Your task to perform on an android device: Open wifi settings Image 0: 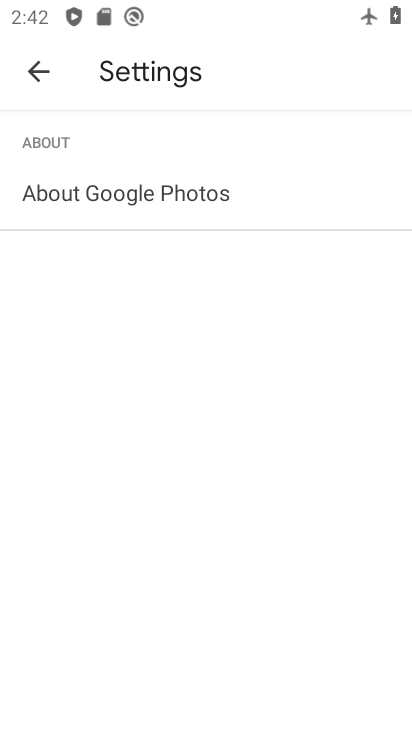
Step 0: press home button
Your task to perform on an android device: Open wifi settings Image 1: 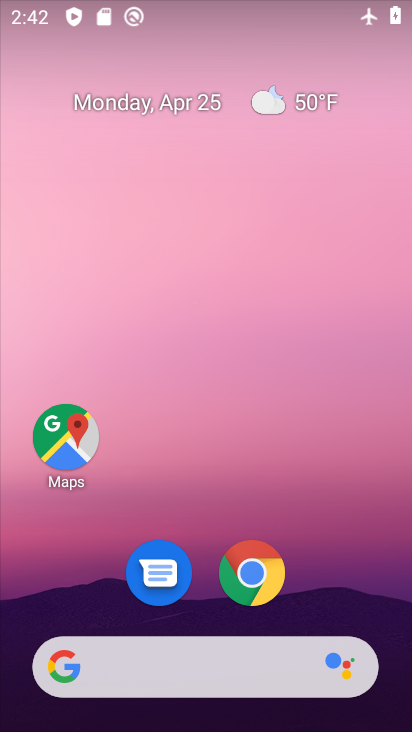
Step 1: drag from (323, 567) to (349, 63)
Your task to perform on an android device: Open wifi settings Image 2: 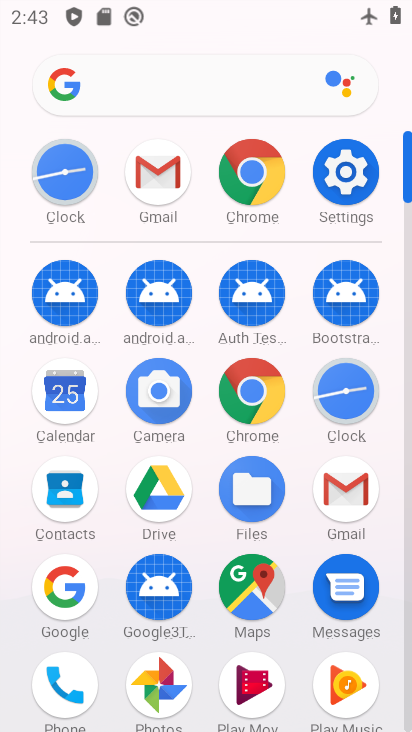
Step 2: click (352, 164)
Your task to perform on an android device: Open wifi settings Image 3: 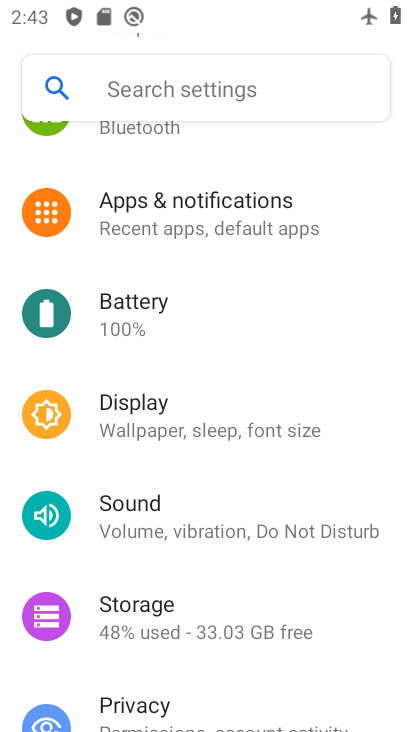
Step 3: drag from (268, 234) to (250, 612)
Your task to perform on an android device: Open wifi settings Image 4: 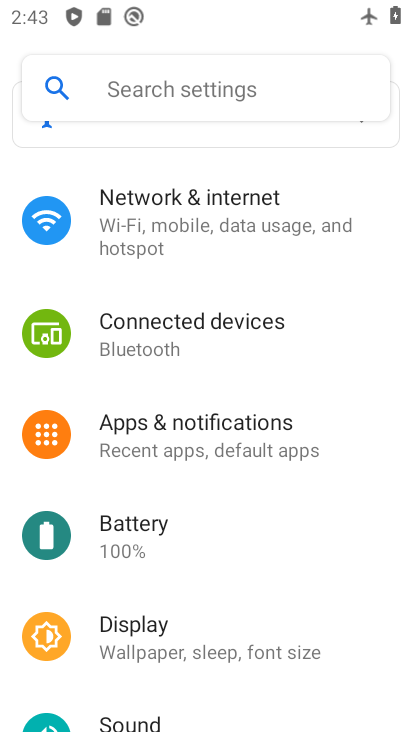
Step 4: drag from (216, 321) to (135, 596)
Your task to perform on an android device: Open wifi settings Image 5: 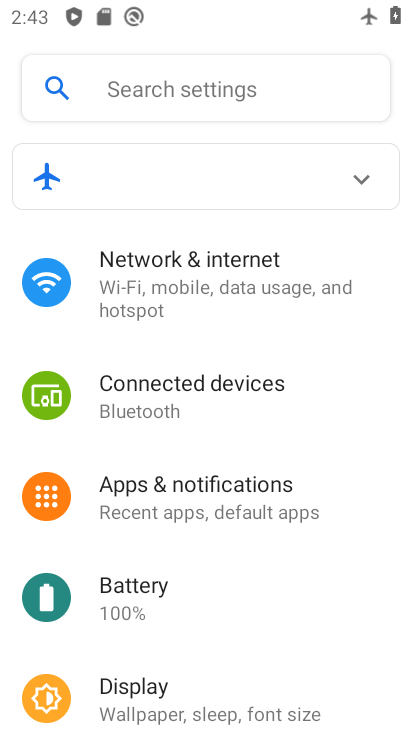
Step 5: drag from (254, 242) to (219, 543)
Your task to perform on an android device: Open wifi settings Image 6: 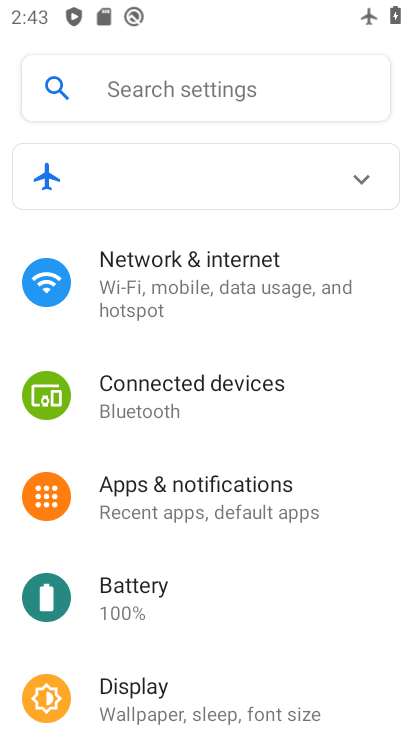
Step 6: click (196, 247)
Your task to perform on an android device: Open wifi settings Image 7: 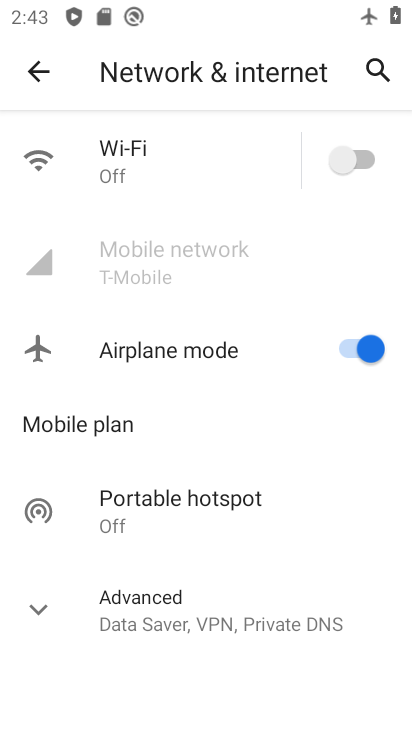
Step 7: click (193, 173)
Your task to perform on an android device: Open wifi settings Image 8: 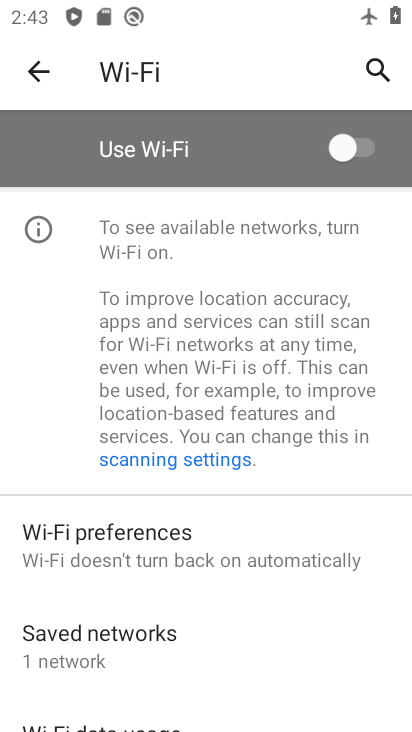
Step 8: task complete